Your task to perform on an android device: Show the shopping cart on ebay.com. Add "logitech g pro" to the cart on ebay.com, then select checkout. Image 0: 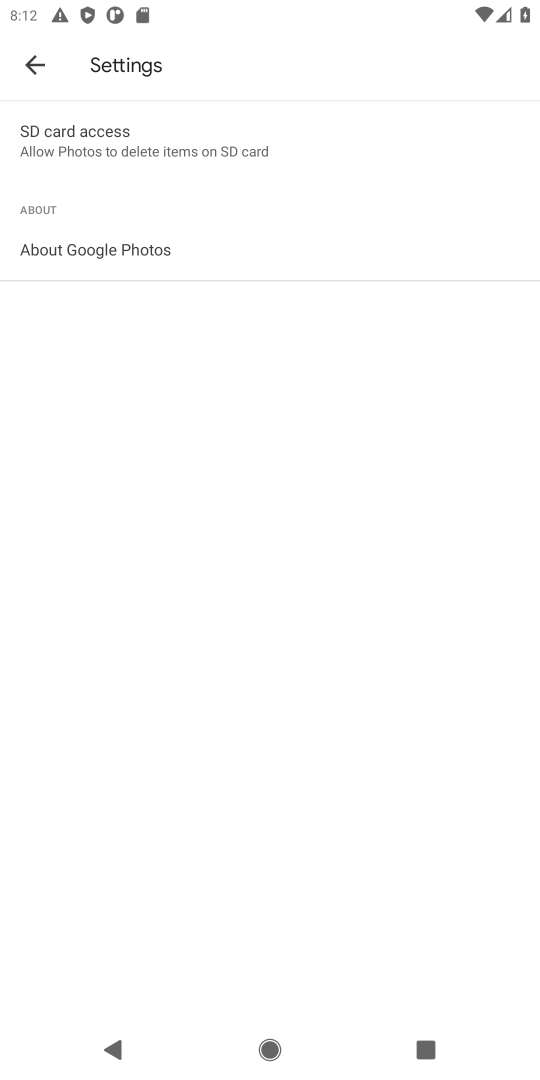
Step 0: press home button
Your task to perform on an android device: Show the shopping cart on ebay.com. Add "logitech g pro" to the cart on ebay.com, then select checkout. Image 1: 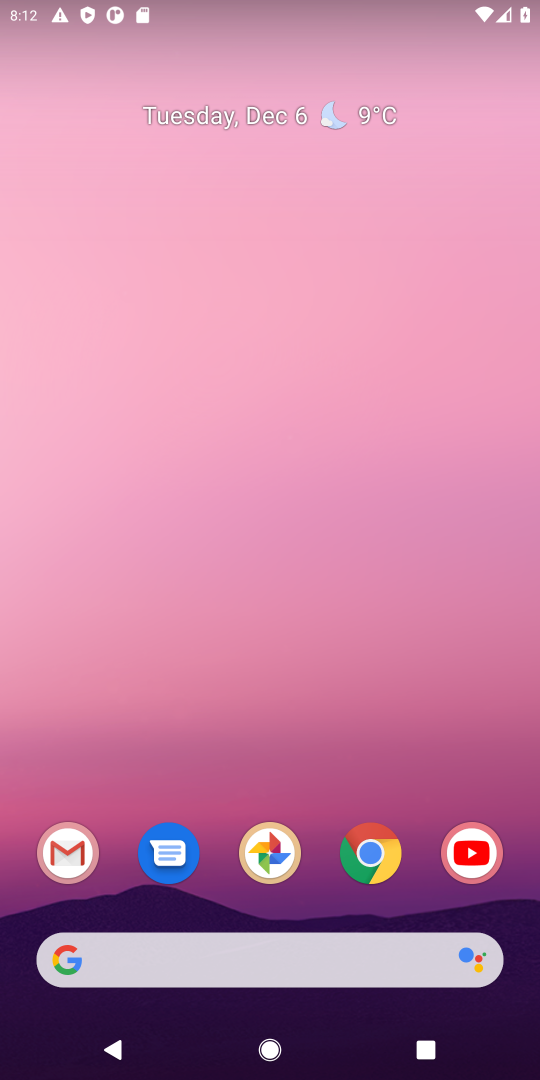
Step 1: click (368, 825)
Your task to perform on an android device: Show the shopping cart on ebay.com. Add "logitech g pro" to the cart on ebay.com, then select checkout. Image 2: 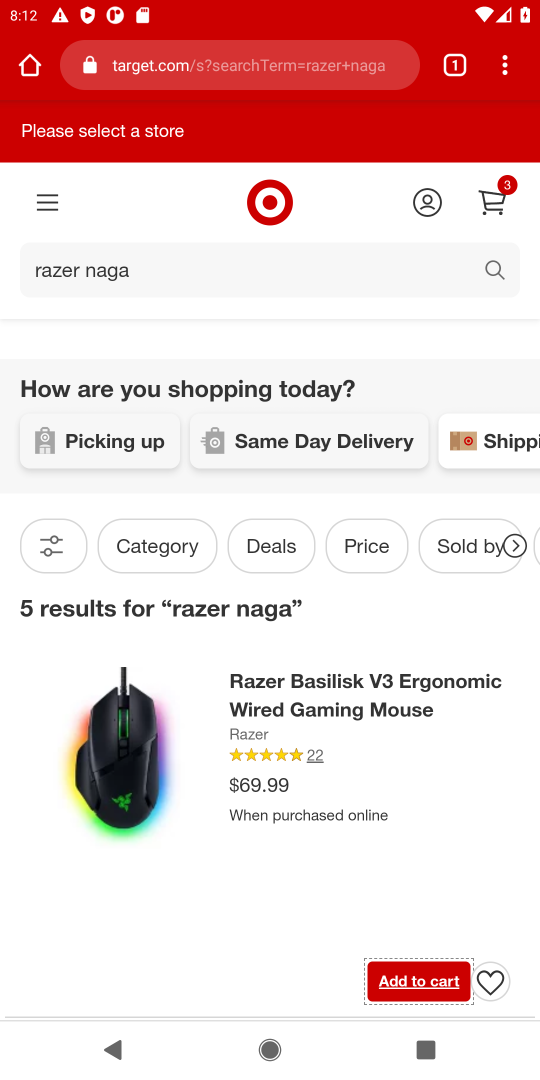
Step 2: click (249, 70)
Your task to perform on an android device: Show the shopping cart on ebay.com. Add "logitech g pro" to the cart on ebay.com, then select checkout. Image 3: 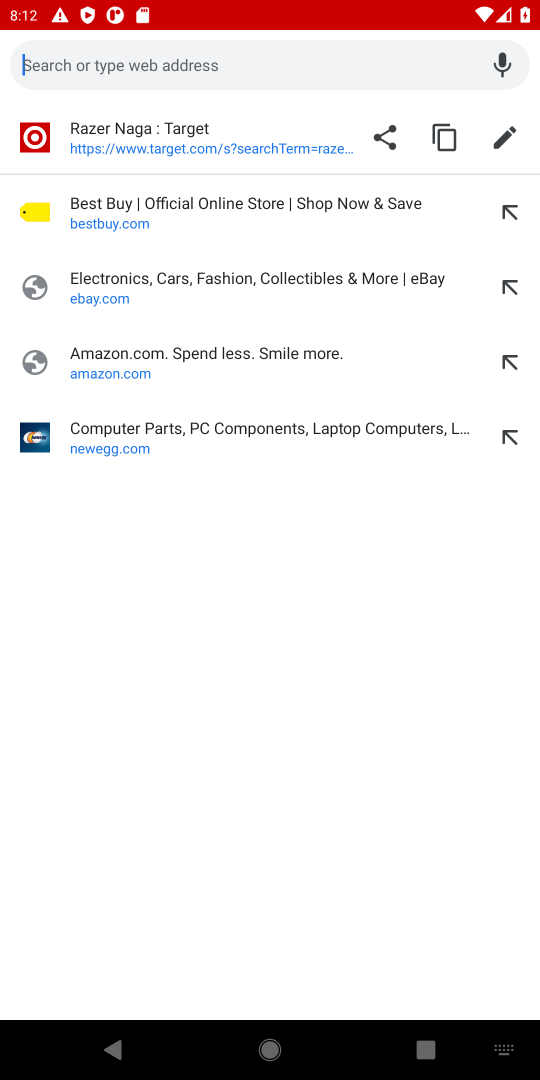
Step 3: click (169, 277)
Your task to perform on an android device: Show the shopping cart on ebay.com. Add "logitech g pro" to the cart on ebay.com, then select checkout. Image 4: 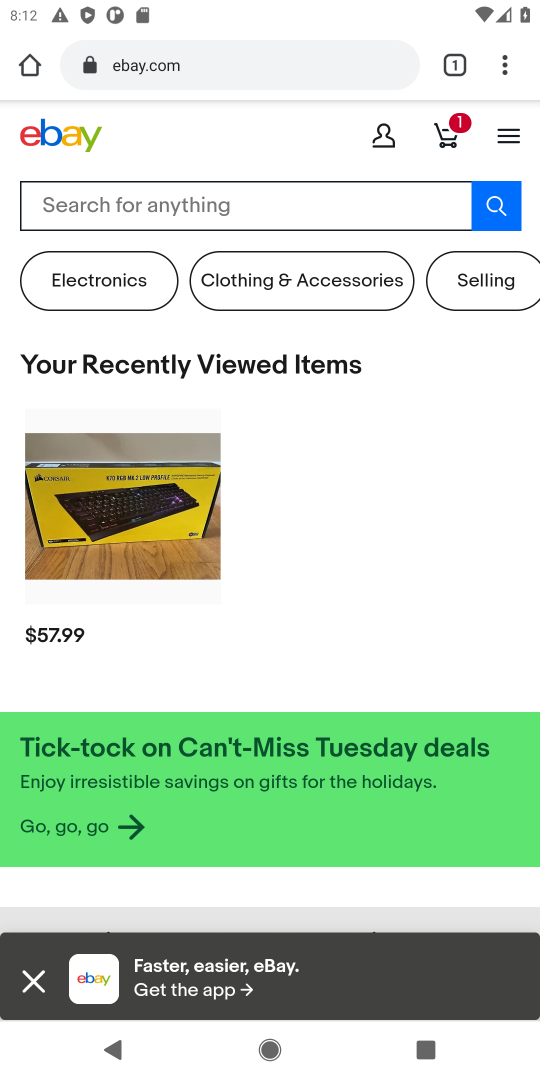
Step 4: click (334, 208)
Your task to perform on an android device: Show the shopping cart on ebay.com. Add "logitech g pro" to the cart on ebay.com, then select checkout. Image 5: 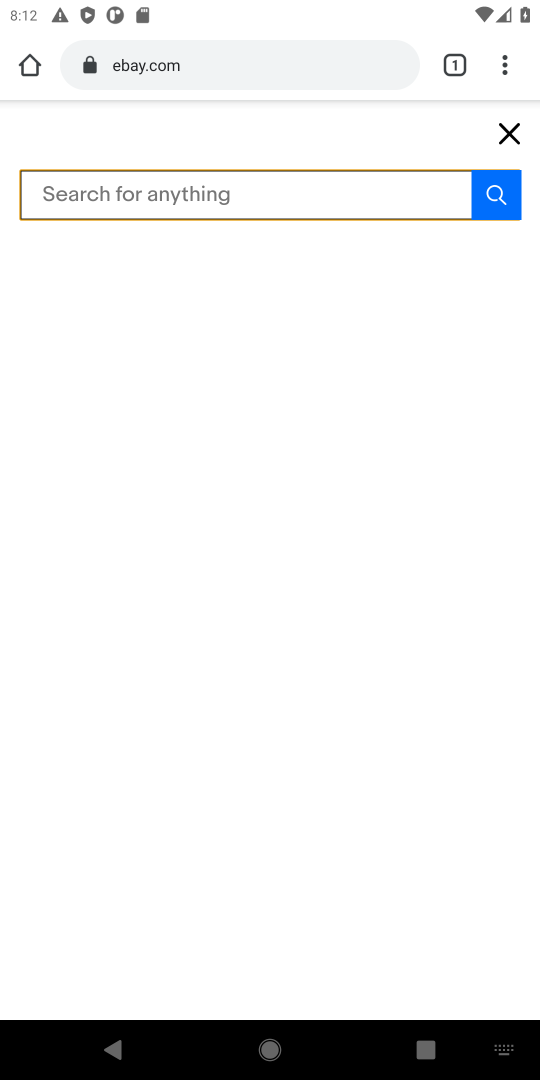
Step 5: type "logitech g pro"
Your task to perform on an android device: Show the shopping cart on ebay.com. Add "logitech g pro" to the cart on ebay.com, then select checkout. Image 6: 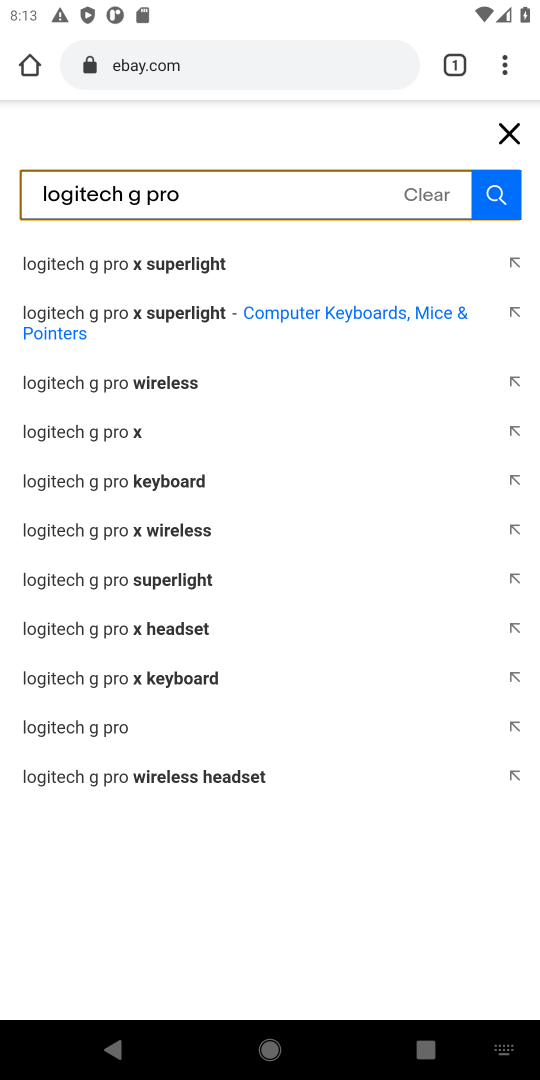
Step 6: click (157, 270)
Your task to perform on an android device: Show the shopping cart on ebay.com. Add "logitech g pro" to the cart on ebay.com, then select checkout. Image 7: 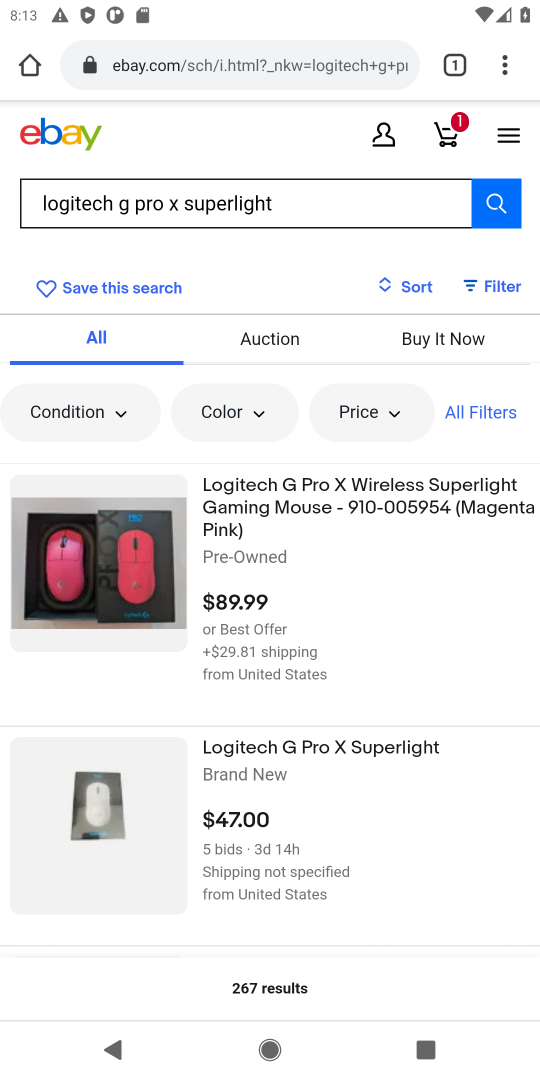
Step 7: click (150, 594)
Your task to perform on an android device: Show the shopping cart on ebay.com. Add "logitech g pro" to the cart on ebay.com, then select checkout. Image 8: 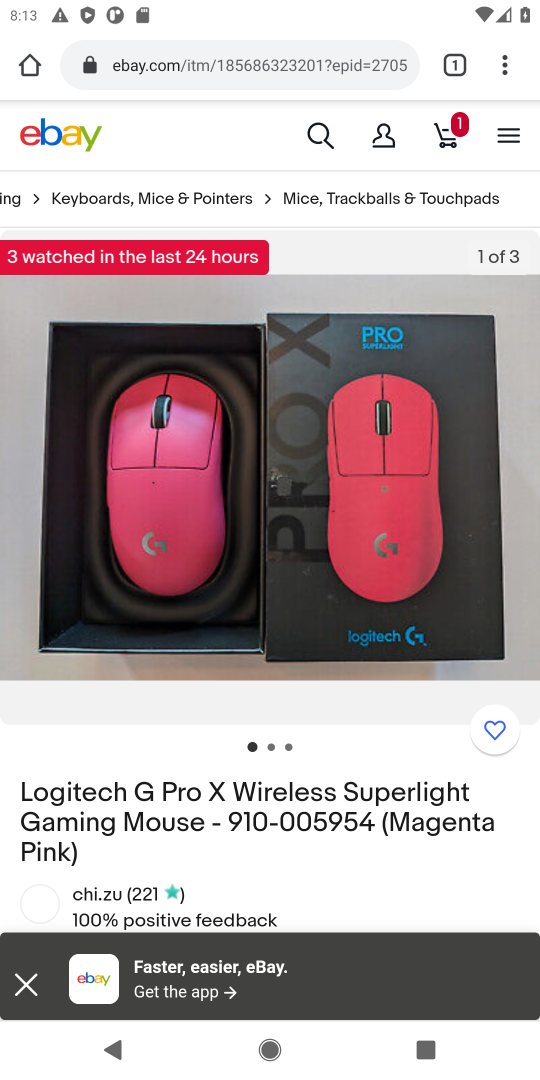
Step 8: drag from (312, 617) to (322, 266)
Your task to perform on an android device: Show the shopping cart on ebay.com. Add "logitech g pro" to the cart on ebay.com, then select checkout. Image 9: 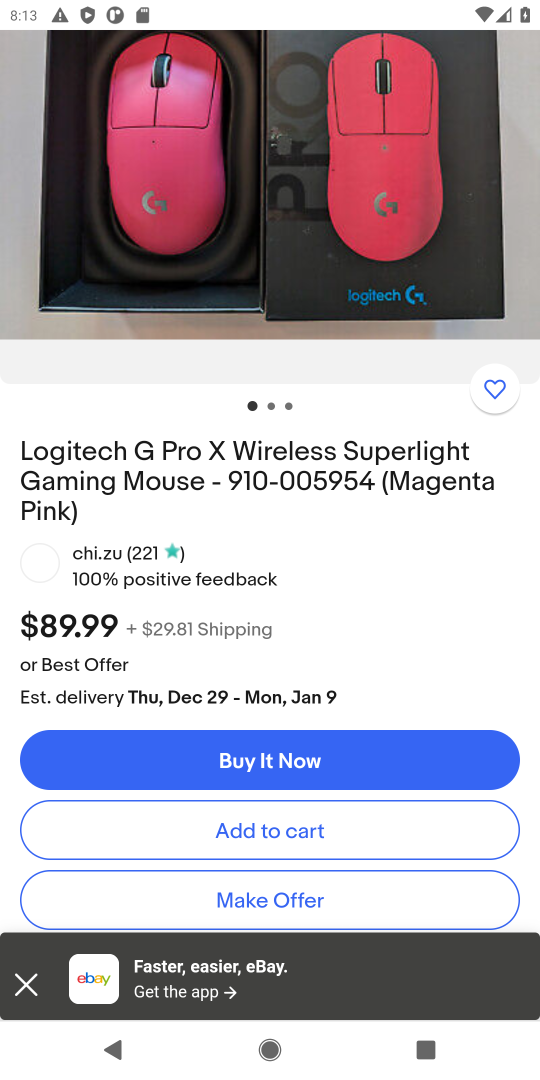
Step 9: click (339, 828)
Your task to perform on an android device: Show the shopping cart on ebay.com. Add "logitech g pro" to the cart on ebay.com, then select checkout. Image 10: 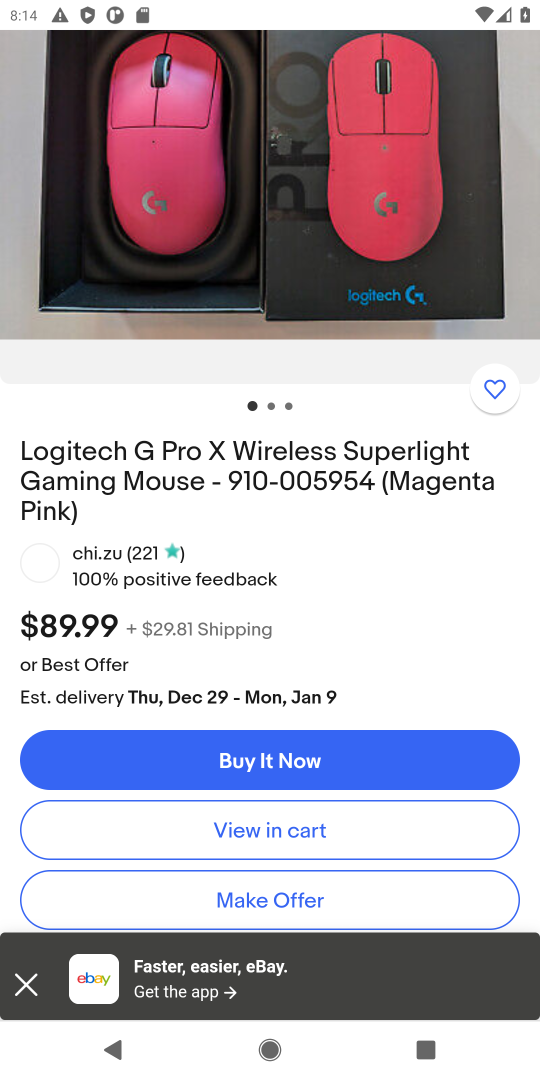
Step 10: click (359, 817)
Your task to perform on an android device: Show the shopping cart on ebay.com. Add "logitech g pro" to the cart on ebay.com, then select checkout. Image 11: 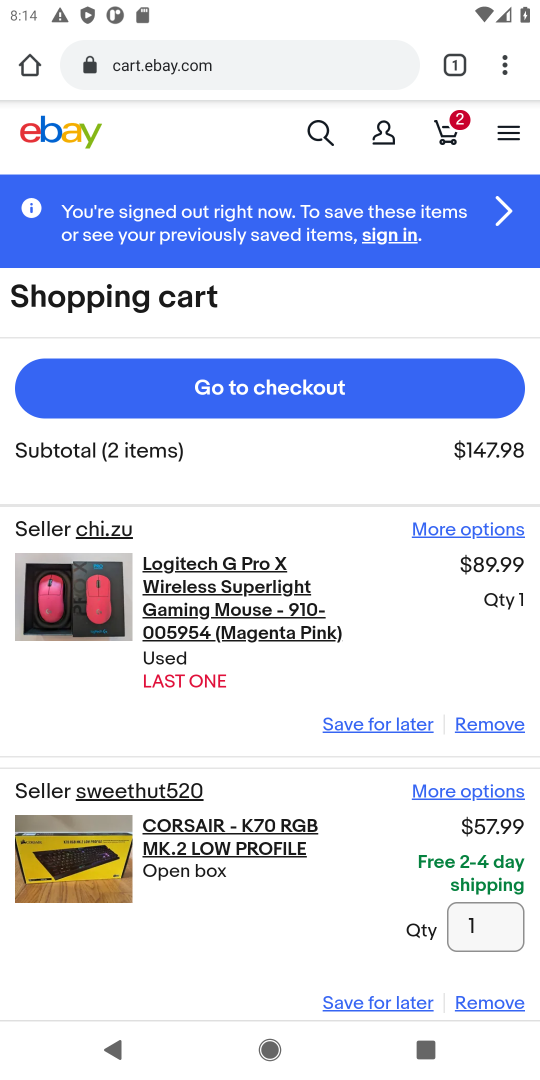
Step 11: click (366, 397)
Your task to perform on an android device: Show the shopping cart on ebay.com. Add "logitech g pro" to the cart on ebay.com, then select checkout. Image 12: 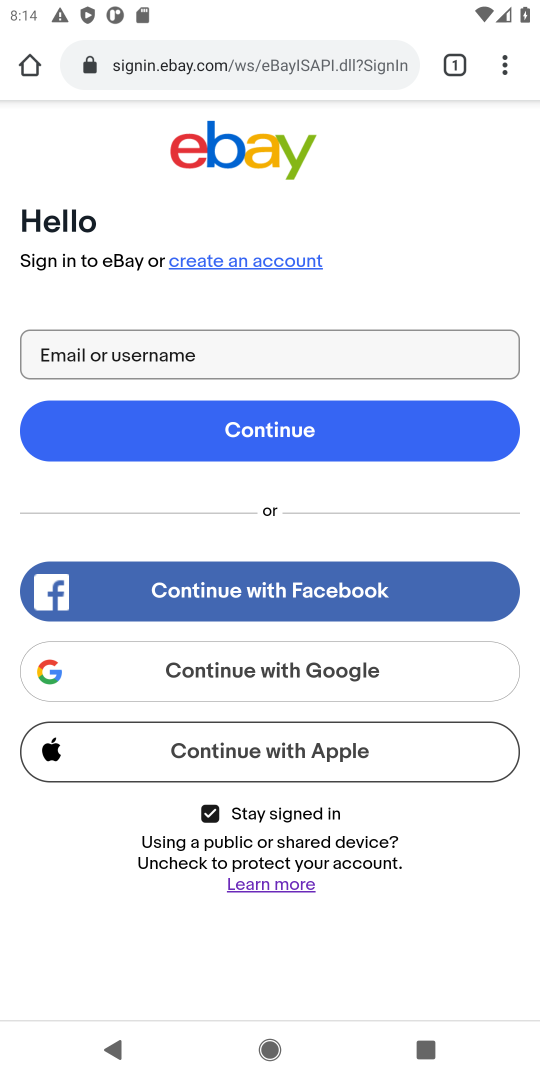
Step 12: task complete